Your task to perform on an android device: add a label to a message in the gmail app Image 0: 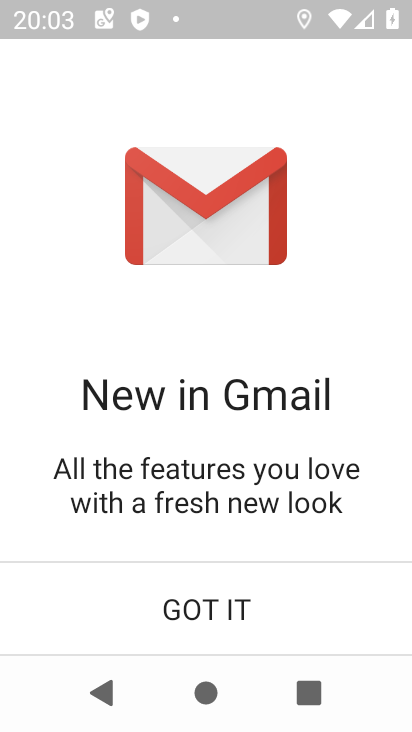
Step 0: click (200, 629)
Your task to perform on an android device: add a label to a message in the gmail app Image 1: 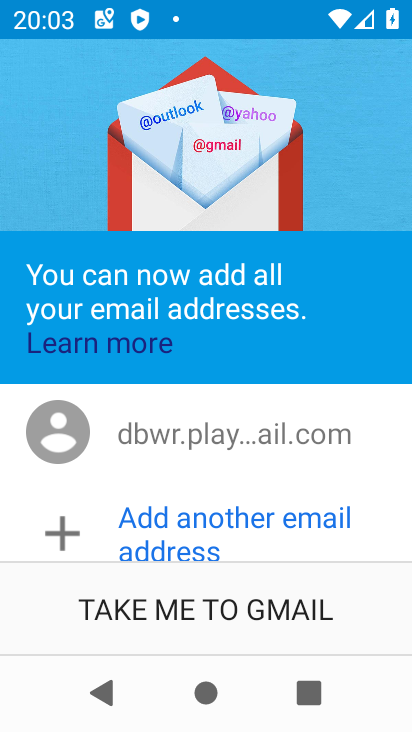
Step 1: click (204, 619)
Your task to perform on an android device: add a label to a message in the gmail app Image 2: 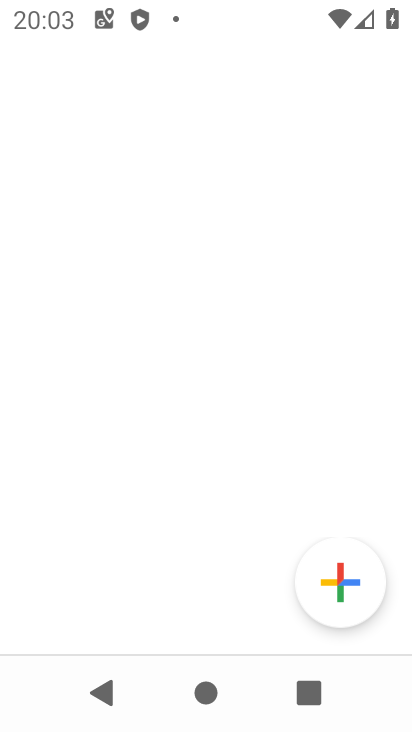
Step 2: drag from (237, 432) to (407, 177)
Your task to perform on an android device: add a label to a message in the gmail app Image 3: 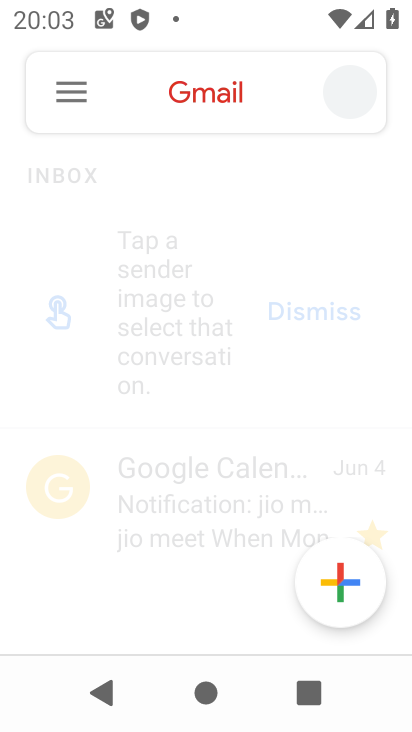
Step 3: drag from (245, 477) to (367, 66)
Your task to perform on an android device: add a label to a message in the gmail app Image 4: 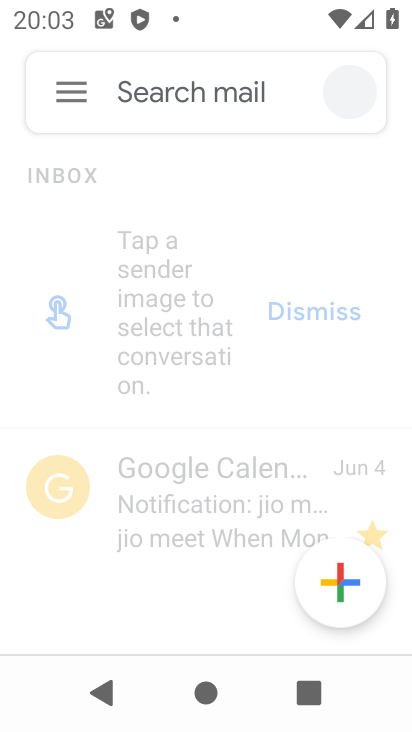
Step 4: drag from (223, 501) to (317, 168)
Your task to perform on an android device: add a label to a message in the gmail app Image 5: 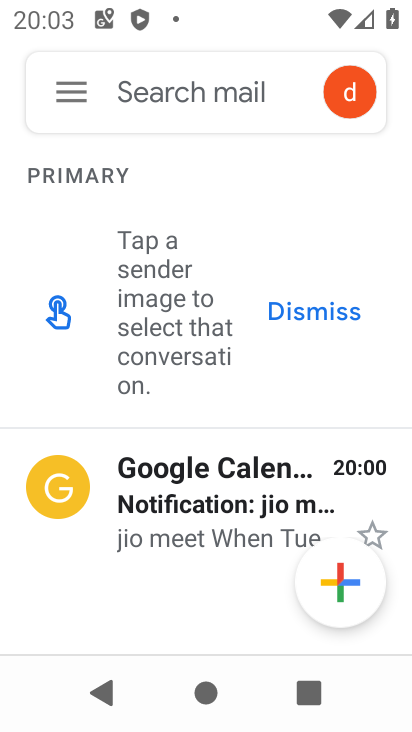
Step 5: click (180, 493)
Your task to perform on an android device: add a label to a message in the gmail app Image 6: 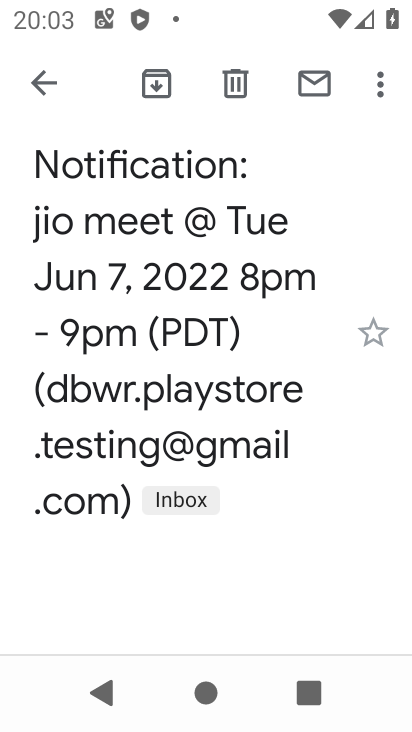
Step 6: click (376, 346)
Your task to perform on an android device: add a label to a message in the gmail app Image 7: 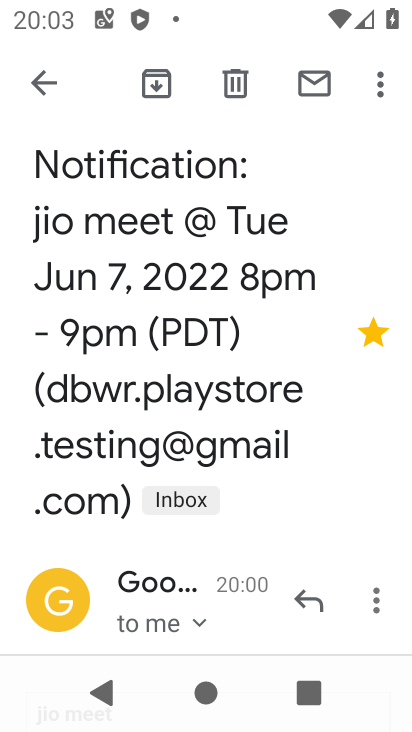
Step 7: task complete